Your task to perform on an android device: set an alarm Image 0: 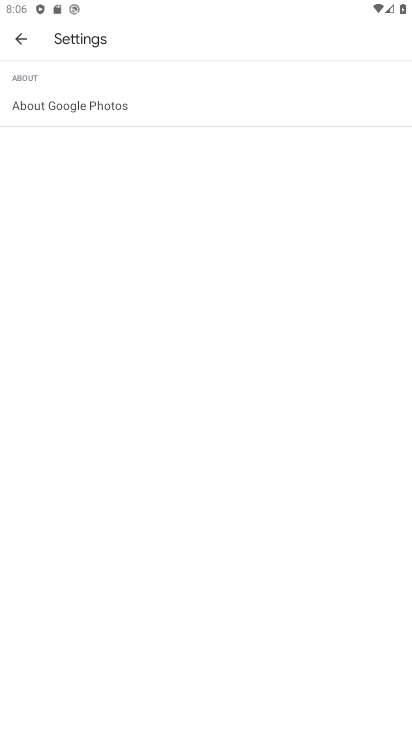
Step 0: press home button
Your task to perform on an android device: set an alarm Image 1: 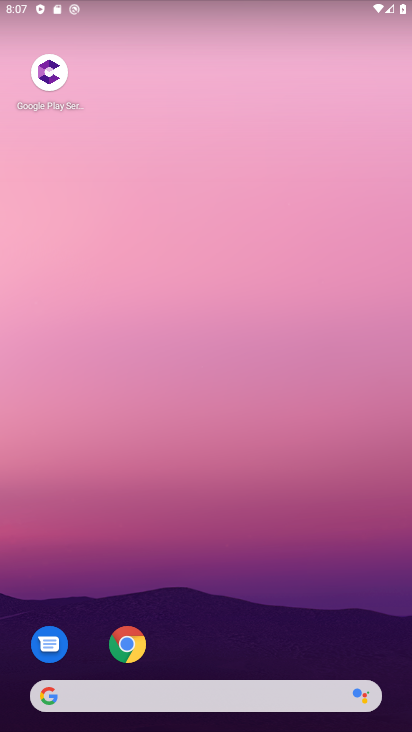
Step 1: drag from (212, 693) to (239, 332)
Your task to perform on an android device: set an alarm Image 2: 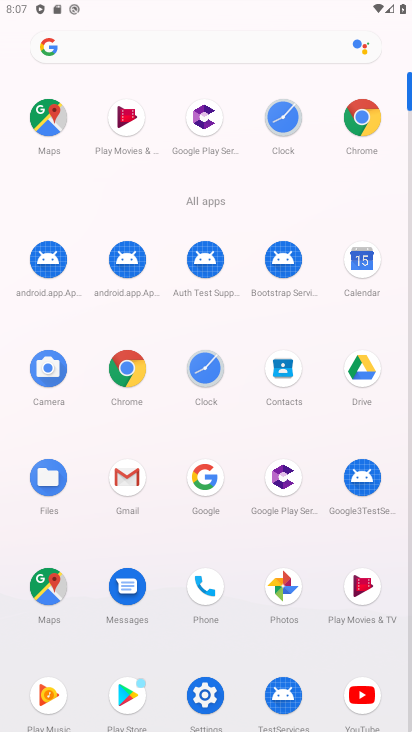
Step 2: click (211, 386)
Your task to perform on an android device: set an alarm Image 3: 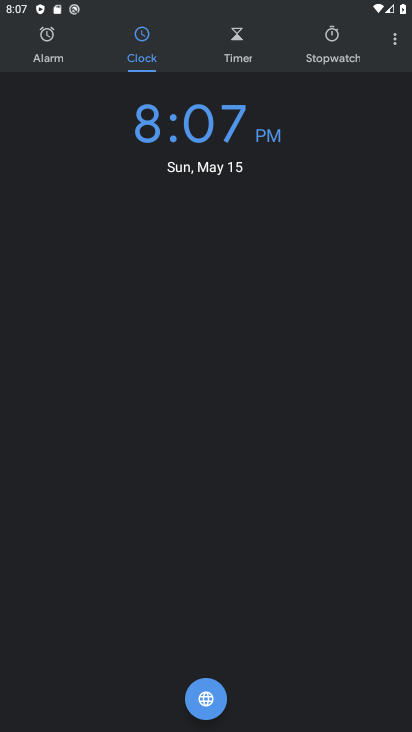
Step 3: click (45, 47)
Your task to perform on an android device: set an alarm Image 4: 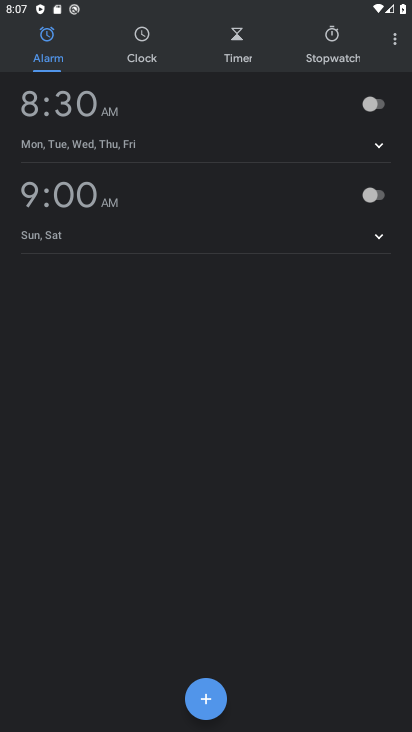
Step 4: click (213, 714)
Your task to perform on an android device: set an alarm Image 5: 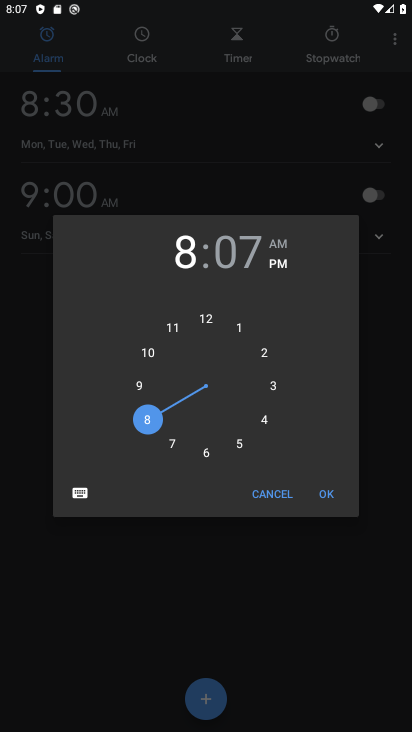
Step 5: click (324, 489)
Your task to perform on an android device: set an alarm Image 6: 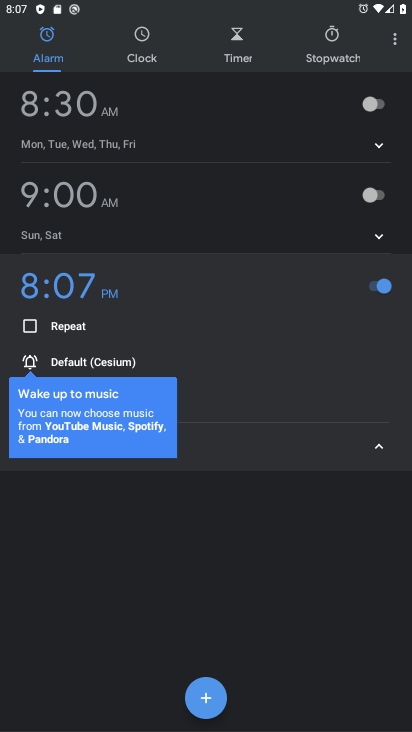
Step 6: task complete